Your task to perform on an android device: turn pop-ups on in chrome Image 0: 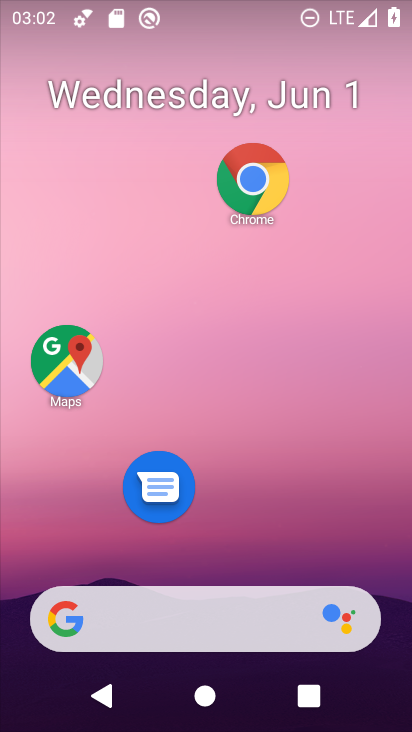
Step 0: click (248, 179)
Your task to perform on an android device: turn pop-ups on in chrome Image 1: 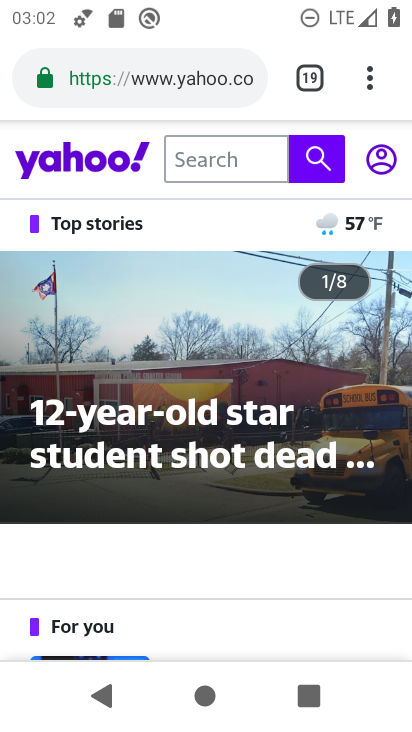
Step 1: click (371, 75)
Your task to perform on an android device: turn pop-ups on in chrome Image 2: 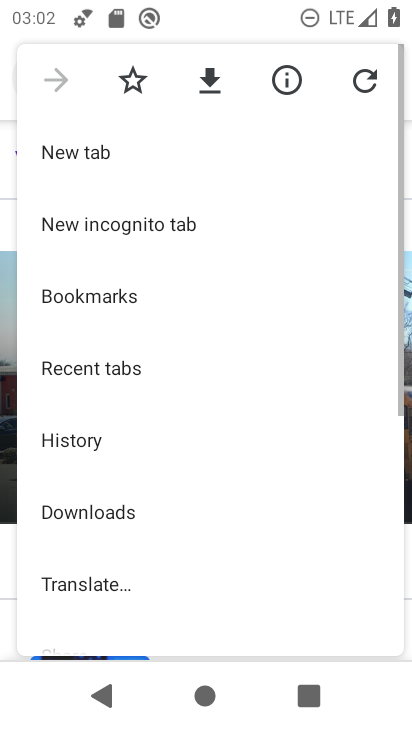
Step 2: drag from (197, 549) to (204, 198)
Your task to perform on an android device: turn pop-ups on in chrome Image 3: 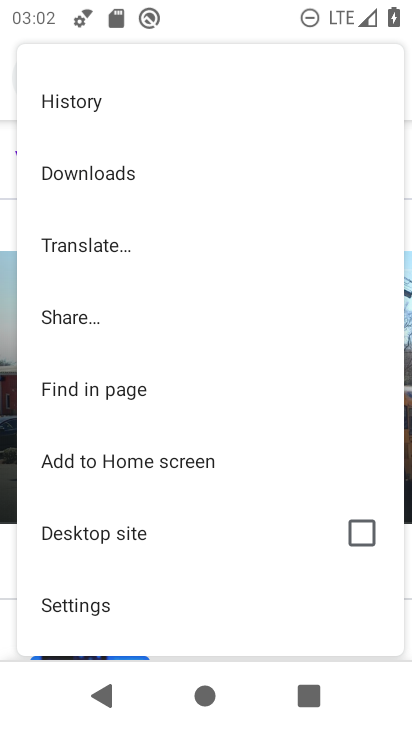
Step 3: click (130, 608)
Your task to perform on an android device: turn pop-ups on in chrome Image 4: 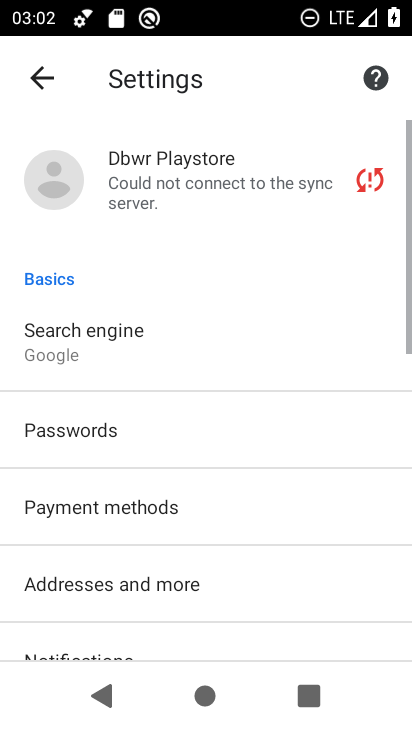
Step 4: drag from (189, 567) to (216, 238)
Your task to perform on an android device: turn pop-ups on in chrome Image 5: 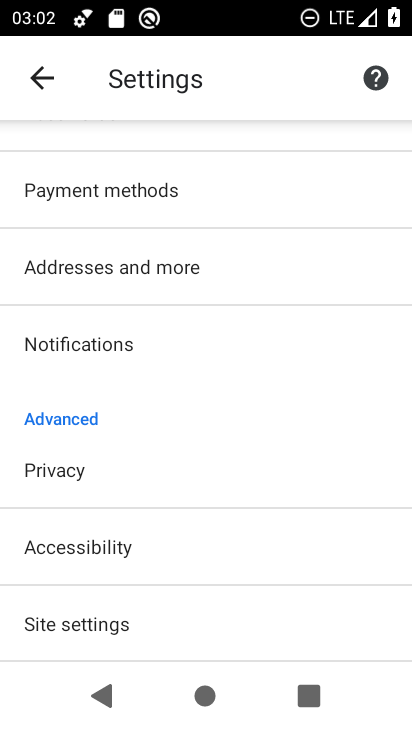
Step 5: click (115, 635)
Your task to perform on an android device: turn pop-ups on in chrome Image 6: 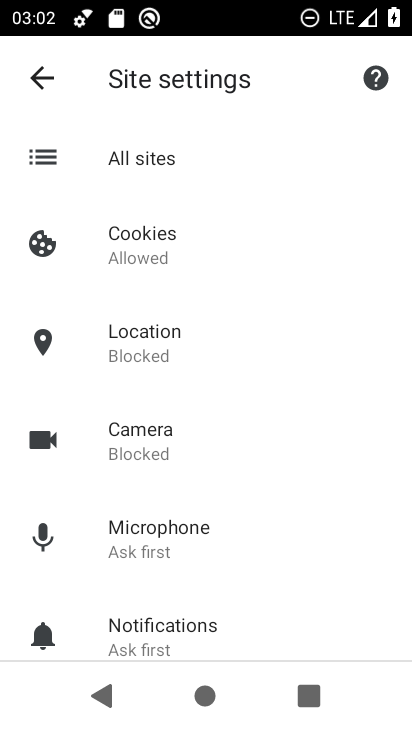
Step 6: drag from (197, 604) to (227, 307)
Your task to perform on an android device: turn pop-ups on in chrome Image 7: 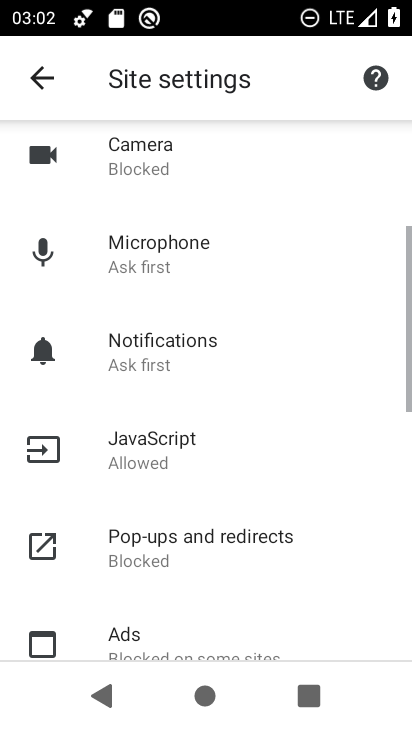
Step 7: click (174, 531)
Your task to perform on an android device: turn pop-ups on in chrome Image 8: 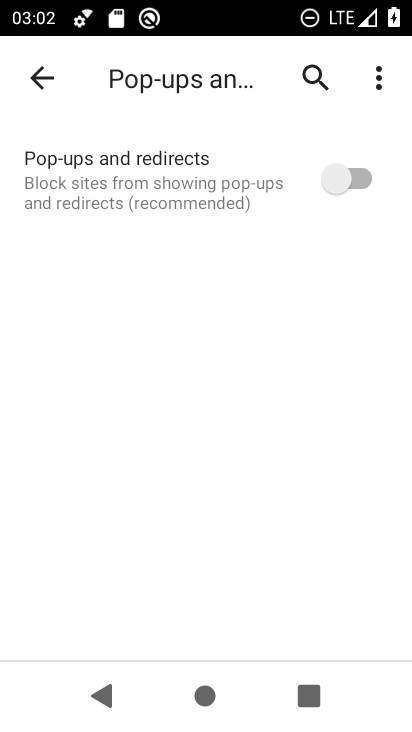
Step 8: click (333, 159)
Your task to perform on an android device: turn pop-ups on in chrome Image 9: 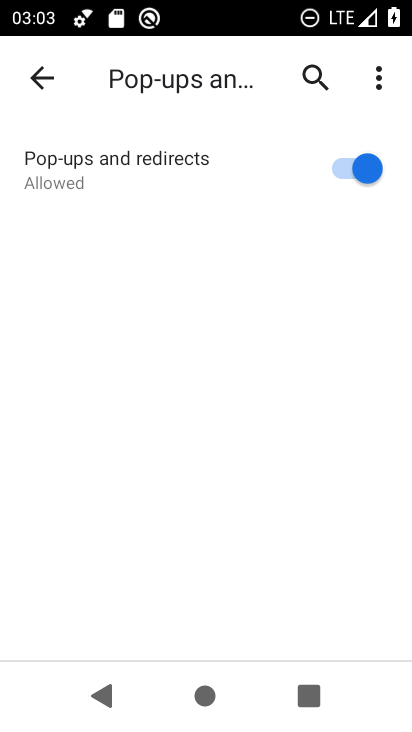
Step 9: task complete